Your task to perform on an android device: open app "eBay: The shopping marketplace" (install if not already installed) Image 0: 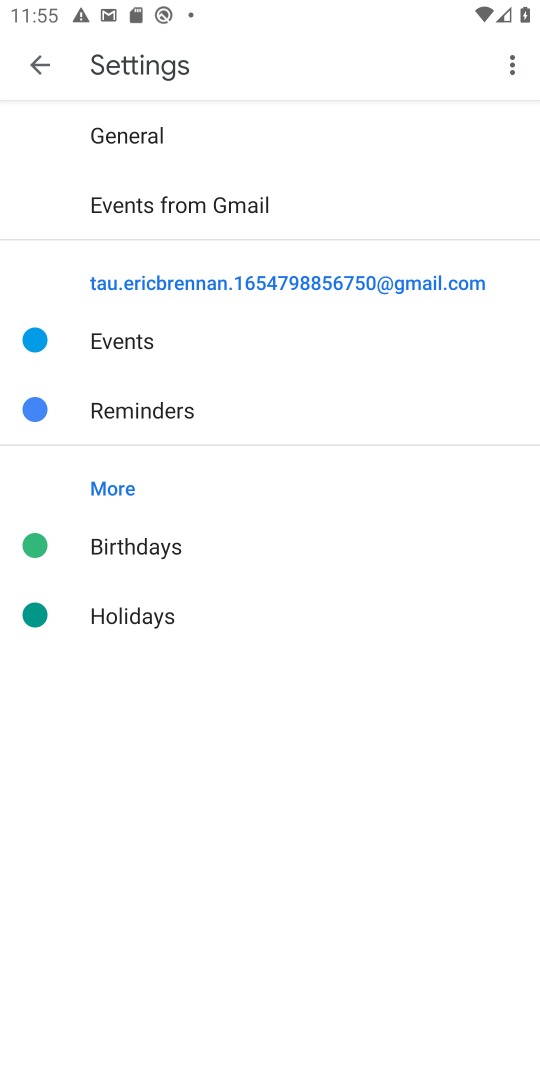
Step 0: press home button
Your task to perform on an android device: open app "eBay: The shopping marketplace" (install if not already installed) Image 1: 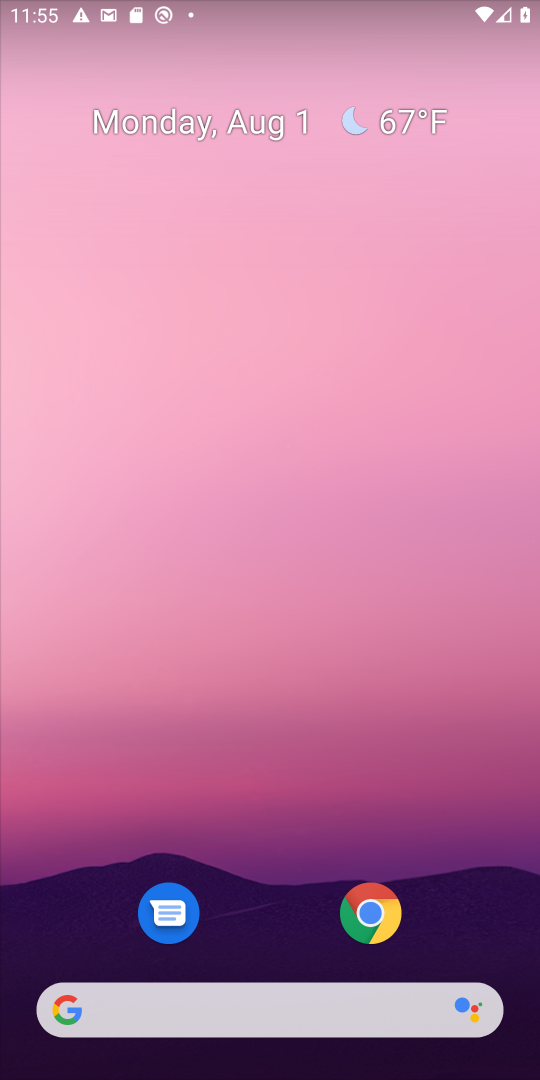
Step 1: drag from (501, 799) to (432, 219)
Your task to perform on an android device: open app "eBay: The shopping marketplace" (install if not already installed) Image 2: 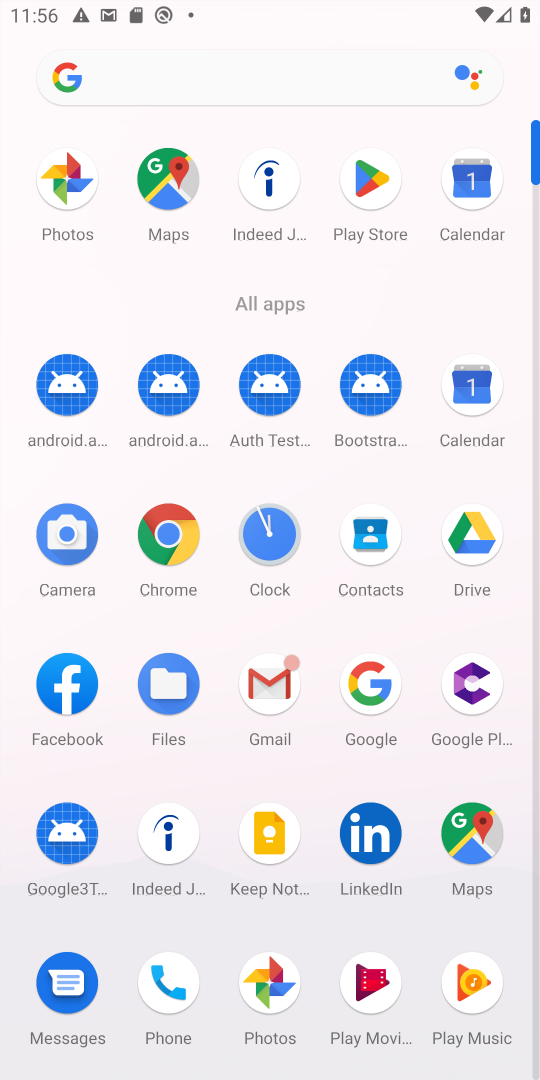
Step 2: click (375, 172)
Your task to perform on an android device: open app "eBay: The shopping marketplace" (install if not already installed) Image 3: 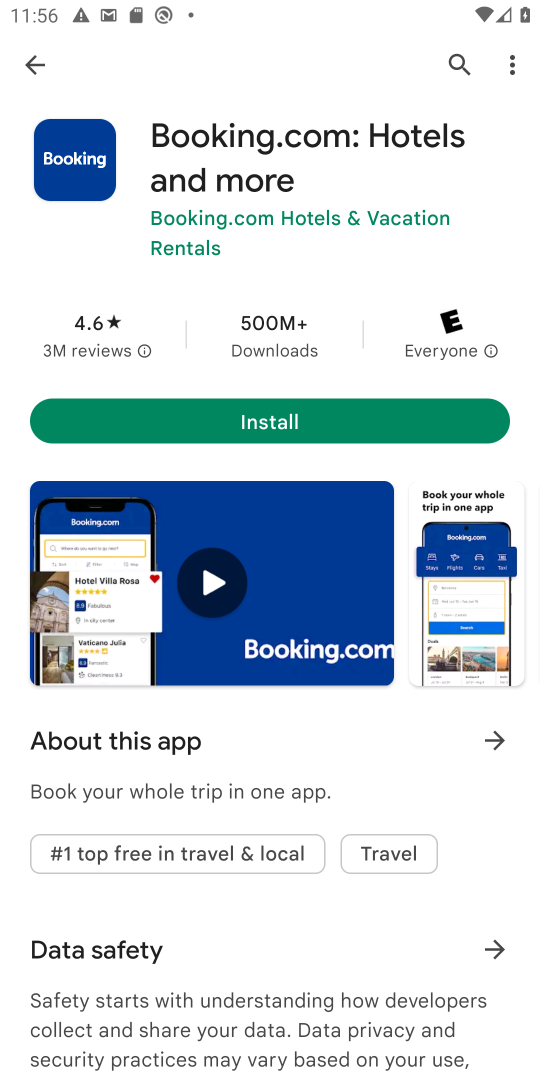
Step 3: click (463, 60)
Your task to perform on an android device: open app "eBay: The shopping marketplace" (install if not already installed) Image 4: 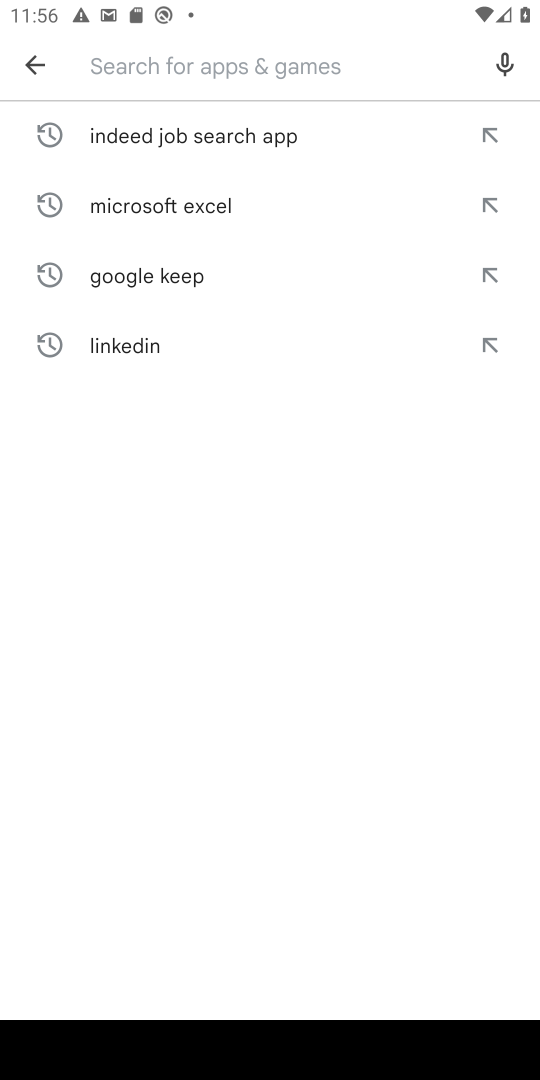
Step 4: type "eBay: The shopping marketplace"
Your task to perform on an android device: open app "eBay: The shopping marketplace" (install if not already installed) Image 5: 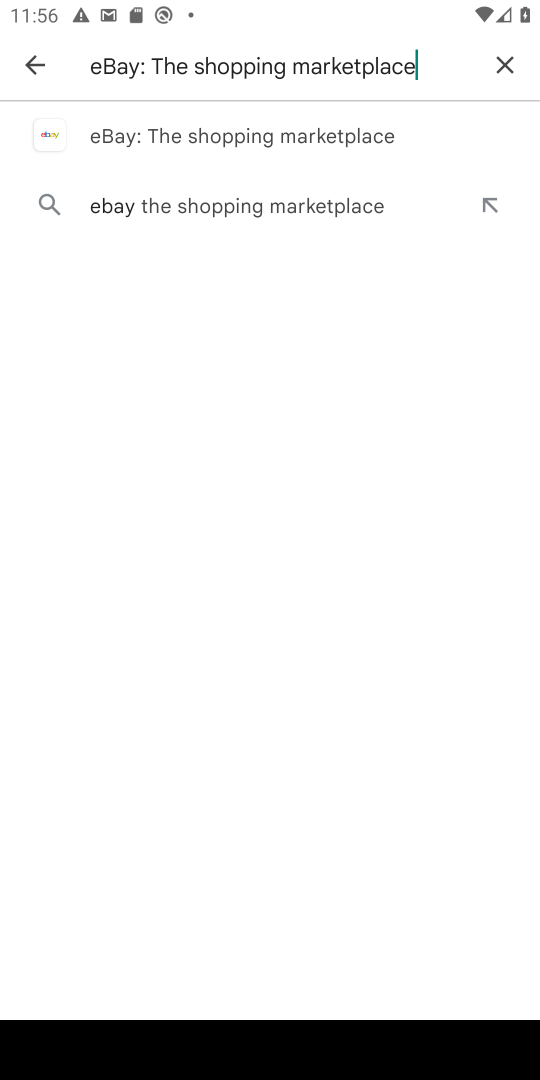
Step 5: click (188, 130)
Your task to perform on an android device: open app "eBay: The shopping marketplace" (install if not already installed) Image 6: 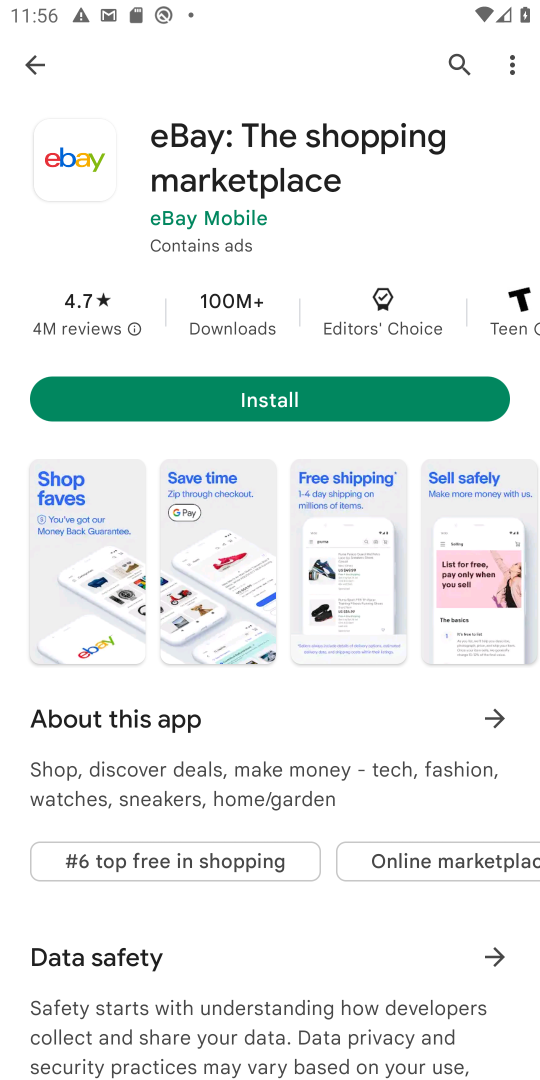
Step 6: click (334, 383)
Your task to perform on an android device: open app "eBay: The shopping marketplace" (install if not already installed) Image 7: 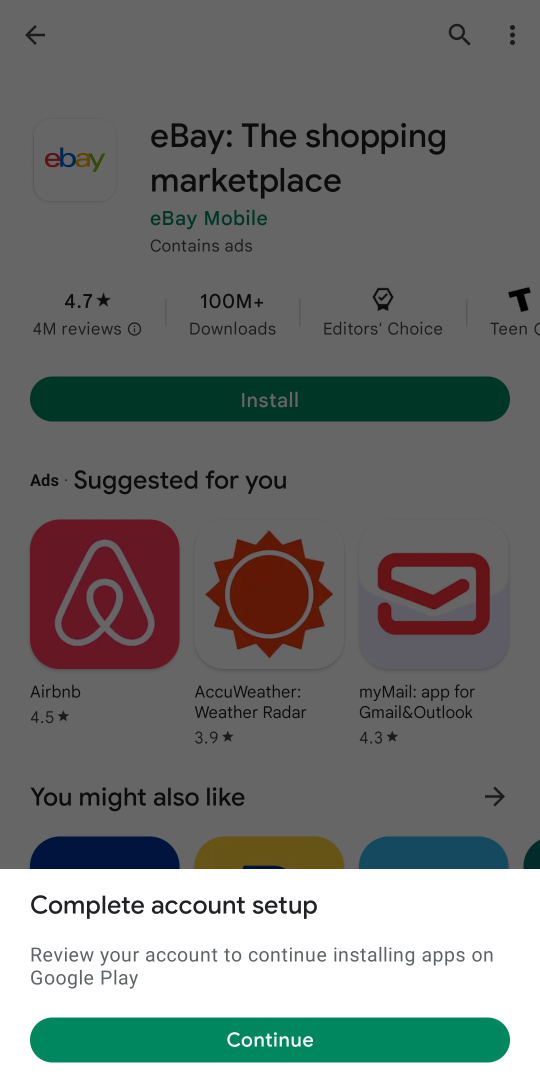
Step 7: click (358, 1033)
Your task to perform on an android device: open app "eBay: The shopping marketplace" (install if not already installed) Image 8: 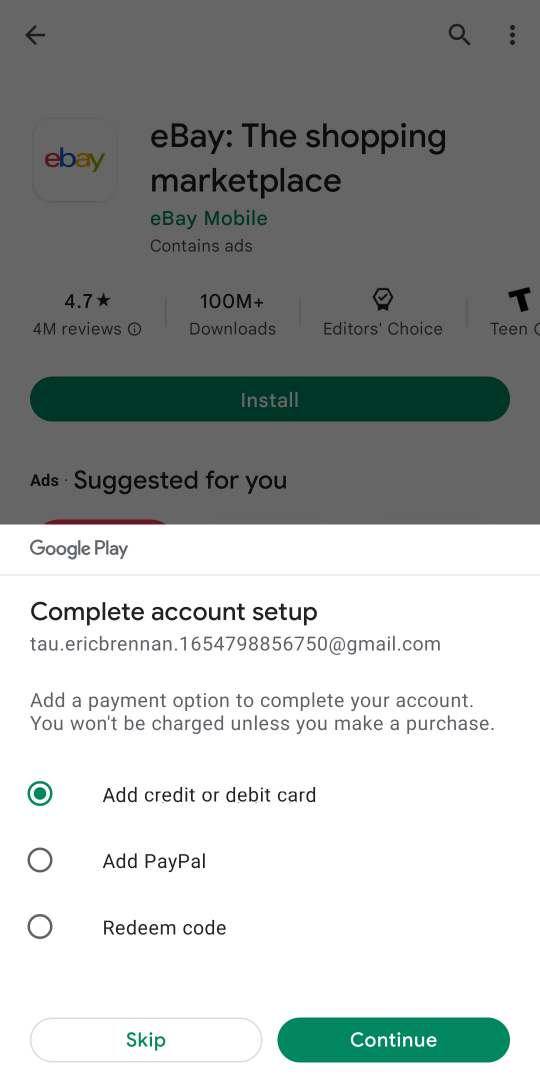
Step 8: task complete